Your task to perform on an android device: Go to ESPN.com Image 0: 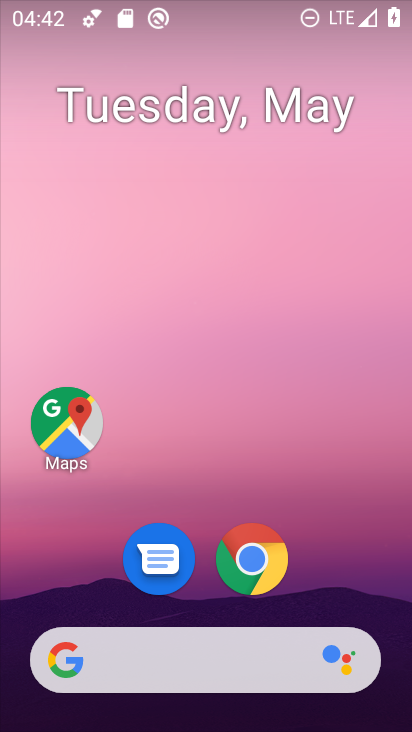
Step 0: click (254, 570)
Your task to perform on an android device: Go to ESPN.com Image 1: 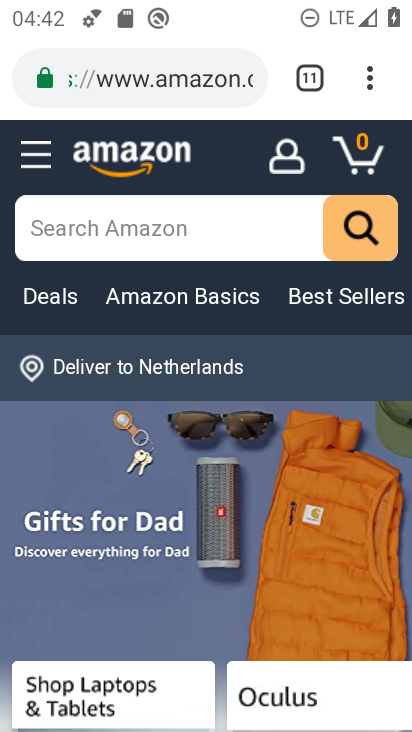
Step 1: click (370, 85)
Your task to perform on an android device: Go to ESPN.com Image 2: 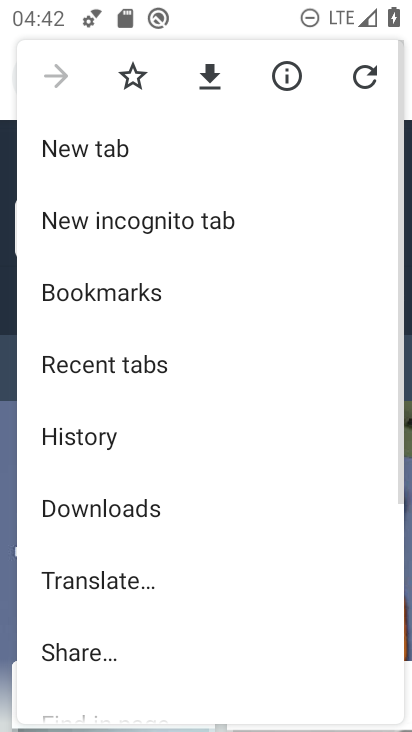
Step 2: click (76, 149)
Your task to perform on an android device: Go to ESPN.com Image 3: 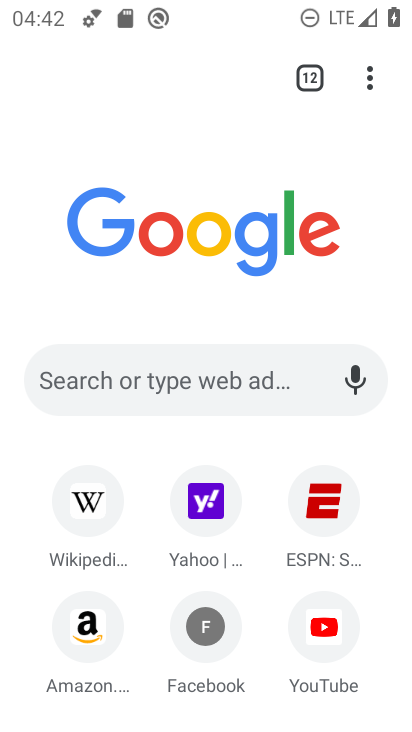
Step 3: click (323, 506)
Your task to perform on an android device: Go to ESPN.com Image 4: 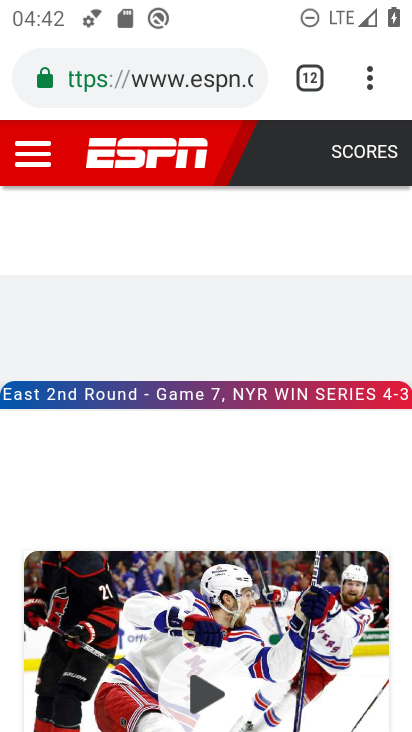
Step 4: task complete